Your task to perform on an android device: turn on the 12-hour format for clock Image 0: 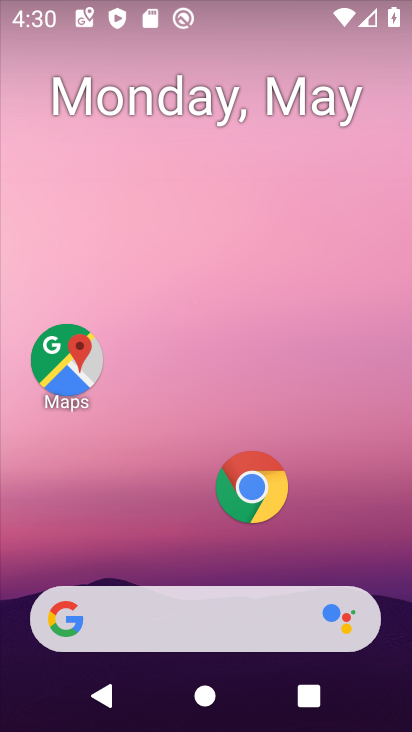
Step 0: drag from (151, 727) to (179, 49)
Your task to perform on an android device: turn on the 12-hour format for clock Image 1: 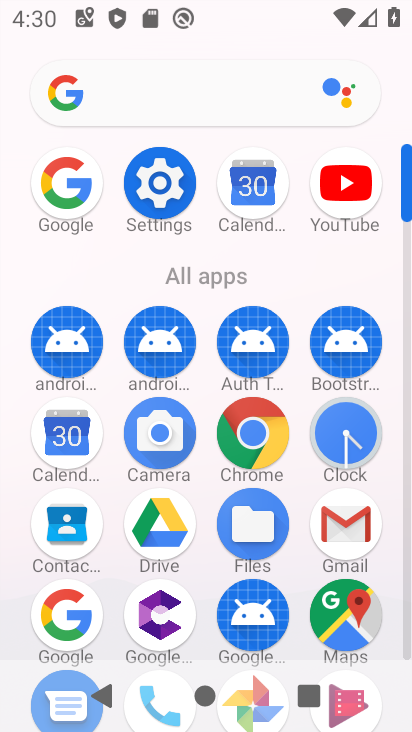
Step 1: click (169, 186)
Your task to perform on an android device: turn on the 12-hour format for clock Image 2: 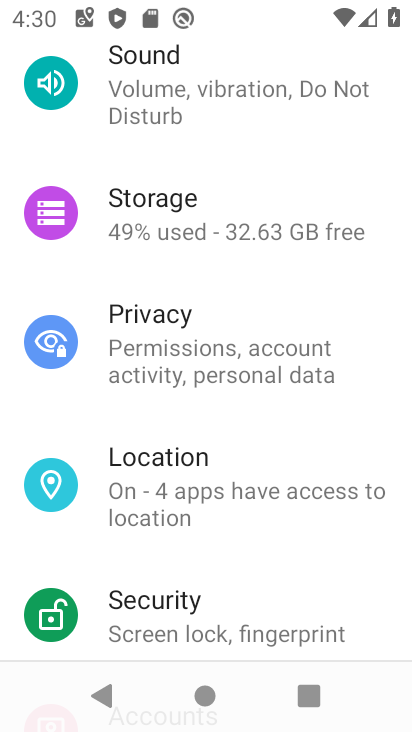
Step 2: drag from (291, 603) to (224, 75)
Your task to perform on an android device: turn on the 12-hour format for clock Image 3: 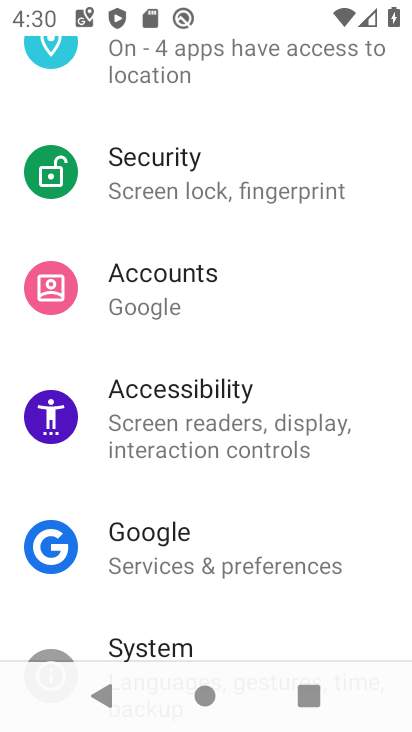
Step 3: drag from (186, 602) to (232, 94)
Your task to perform on an android device: turn on the 12-hour format for clock Image 4: 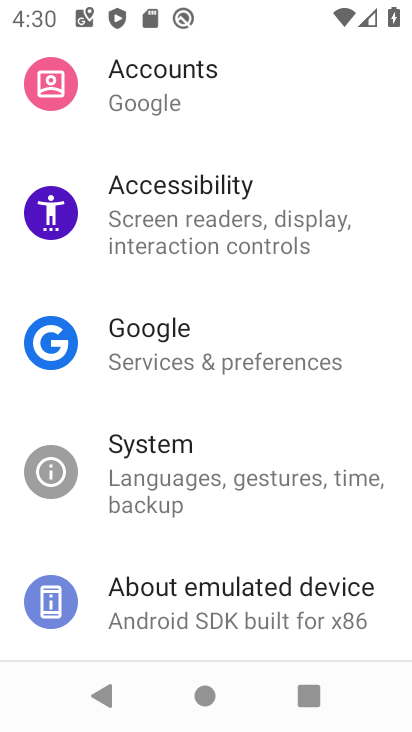
Step 4: click (179, 484)
Your task to perform on an android device: turn on the 12-hour format for clock Image 5: 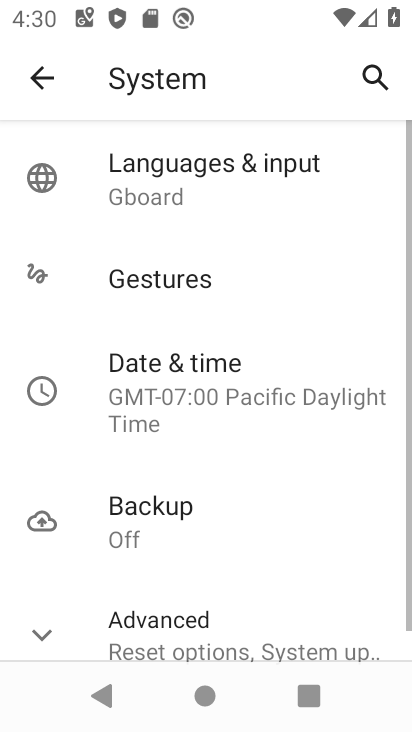
Step 5: drag from (210, 557) to (178, 47)
Your task to perform on an android device: turn on the 12-hour format for clock Image 6: 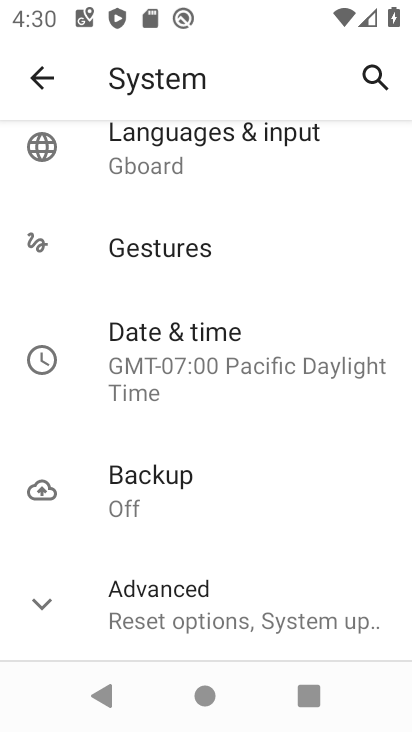
Step 6: click (255, 378)
Your task to perform on an android device: turn on the 12-hour format for clock Image 7: 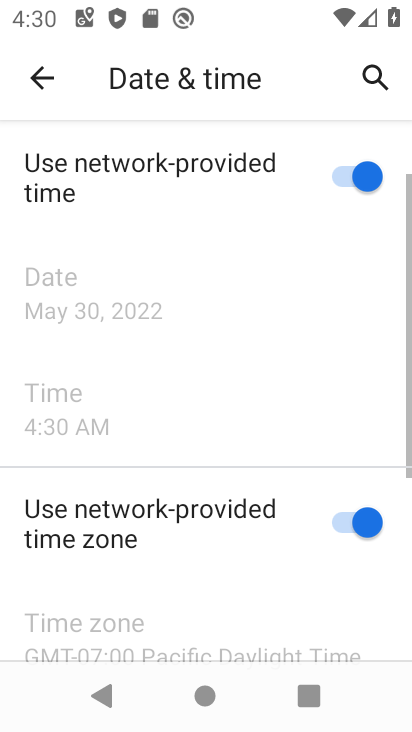
Step 7: task complete